Your task to perform on an android device: open app "Booking.com: Hotels and more" (install if not already installed) and enter user name: "misting@outlook.com" and password: "blandly" Image 0: 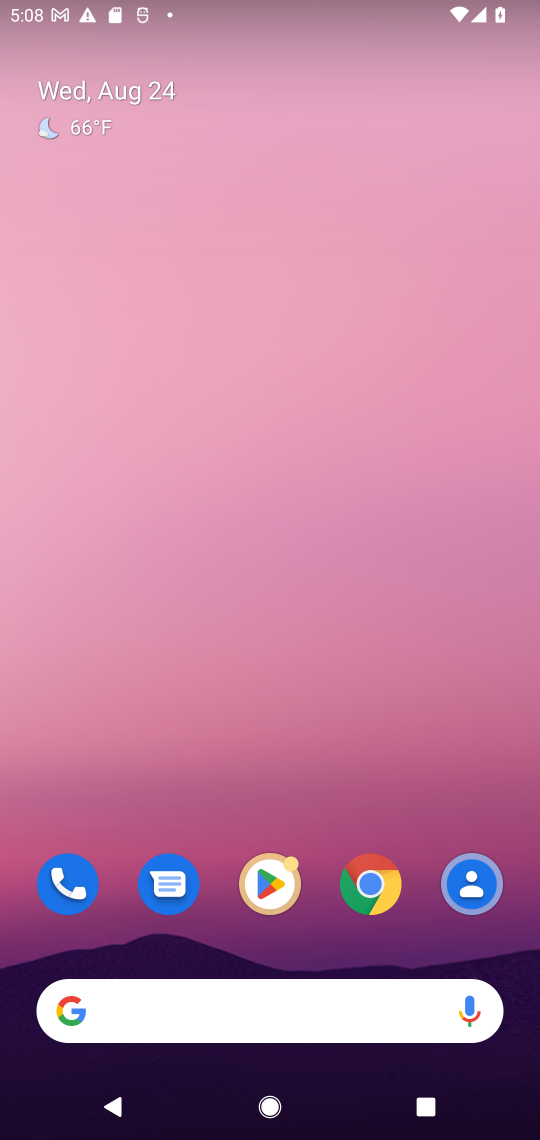
Step 0: click (265, 878)
Your task to perform on an android device: open app "Booking.com: Hotels and more" (install if not already installed) and enter user name: "misting@outlook.com" and password: "blandly" Image 1: 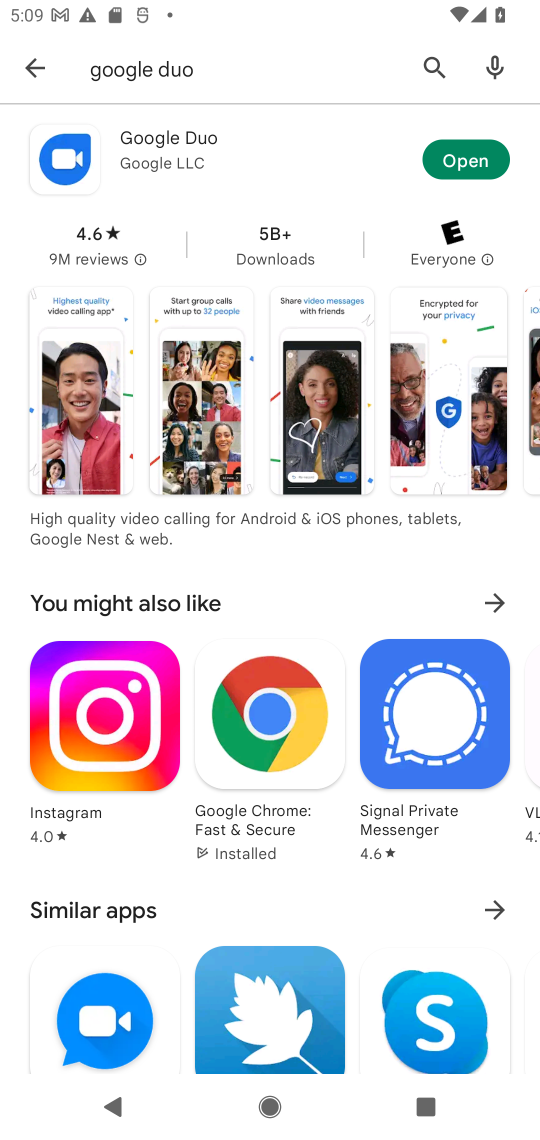
Step 1: click (43, 70)
Your task to perform on an android device: open app "Booking.com: Hotels and more" (install if not already installed) and enter user name: "misting@outlook.com" and password: "blandly" Image 2: 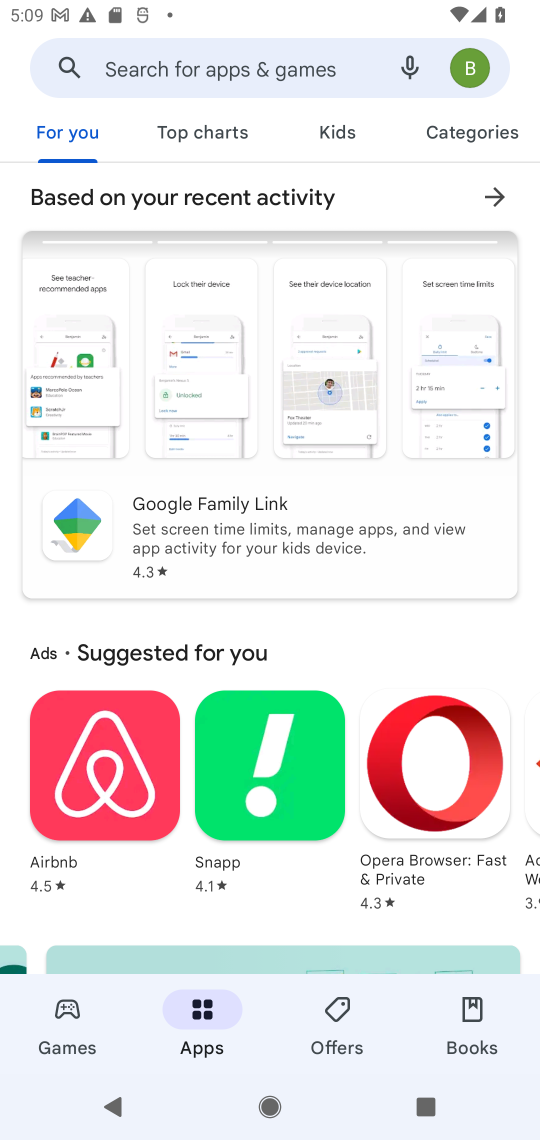
Step 2: click (173, 63)
Your task to perform on an android device: open app "Booking.com: Hotels and more" (install if not already installed) and enter user name: "misting@outlook.com" and password: "blandly" Image 3: 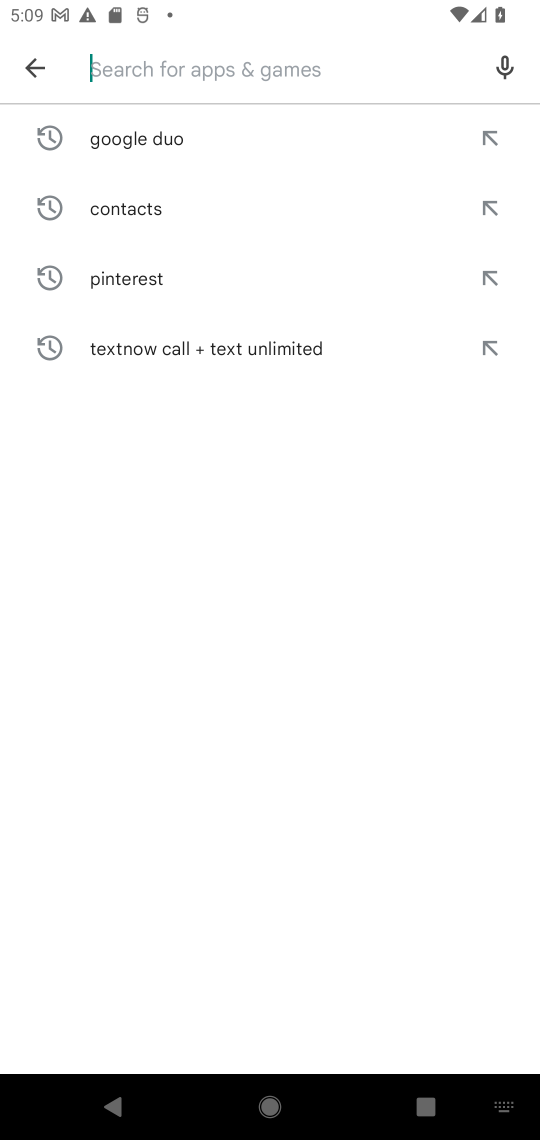
Step 3: type "Booking.com: Hotels and more"
Your task to perform on an android device: open app "Booking.com: Hotels and more" (install if not already installed) and enter user name: "misting@outlook.com" and password: "blandly" Image 4: 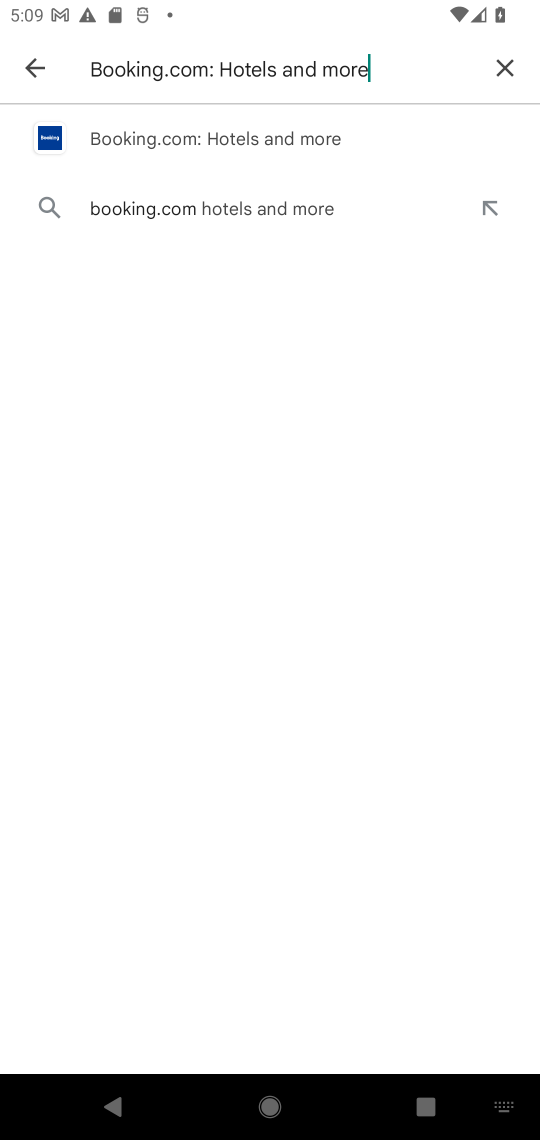
Step 4: click (302, 128)
Your task to perform on an android device: open app "Booking.com: Hotels and more" (install if not already installed) and enter user name: "misting@outlook.com" and password: "blandly" Image 5: 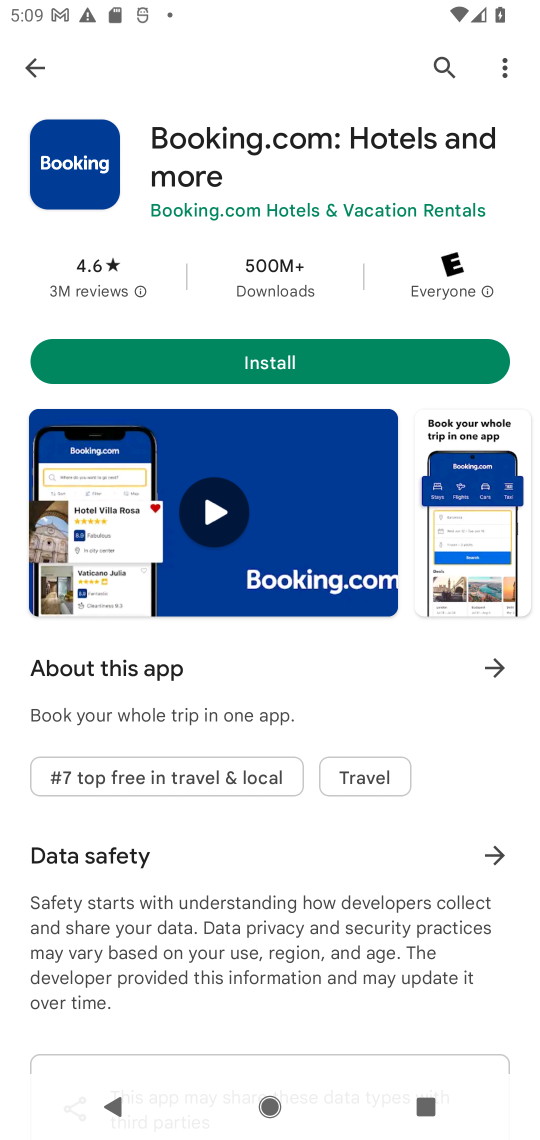
Step 5: click (267, 361)
Your task to perform on an android device: open app "Booking.com: Hotels and more" (install if not already installed) and enter user name: "misting@outlook.com" and password: "blandly" Image 6: 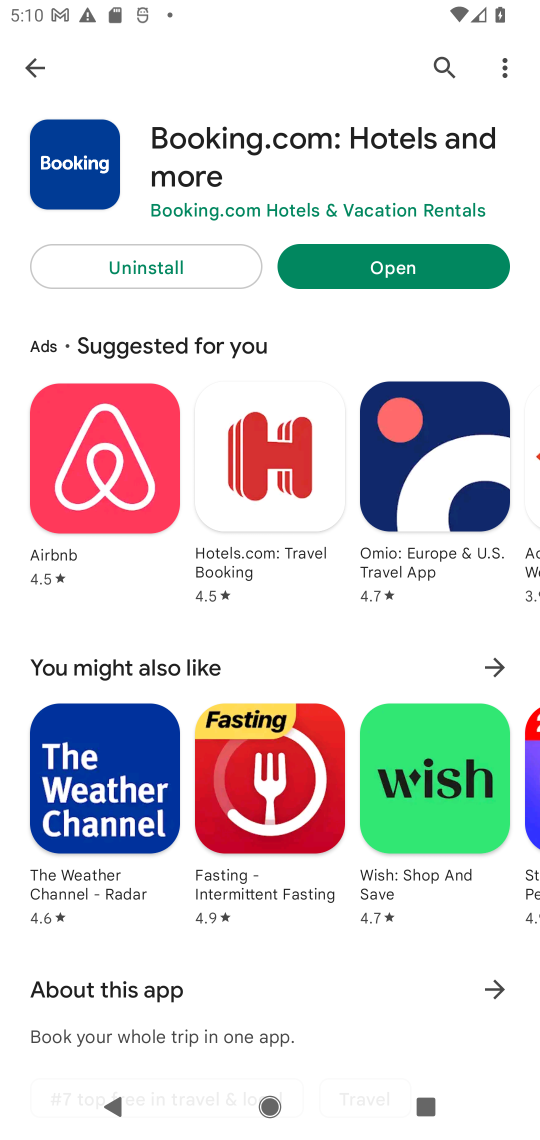
Step 6: click (394, 260)
Your task to perform on an android device: open app "Booking.com: Hotels and more" (install if not already installed) and enter user name: "misting@outlook.com" and password: "blandly" Image 7: 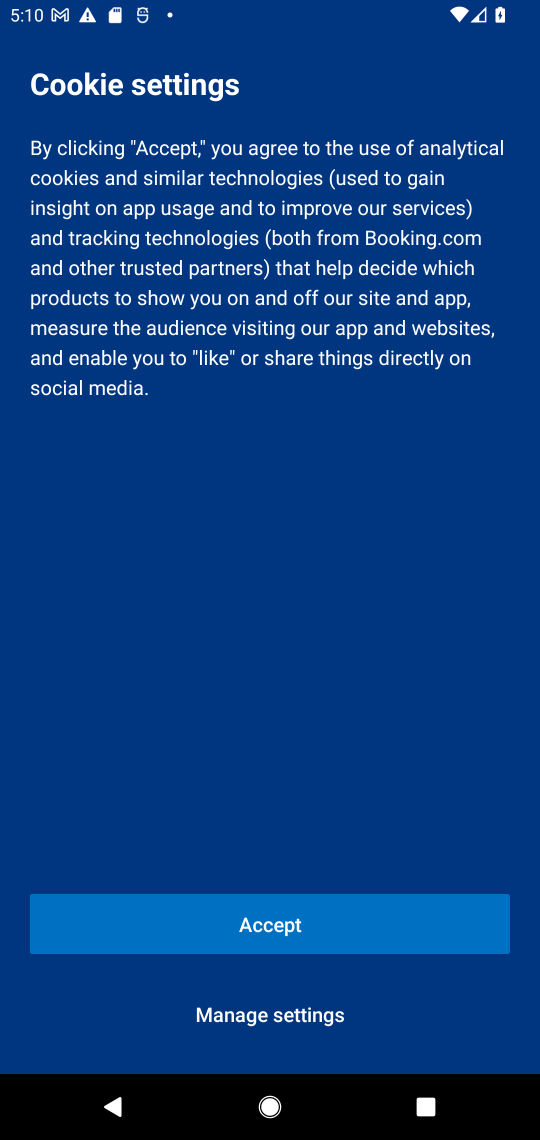
Step 7: task complete